Your task to perform on an android device: Turn off the flashlight Image 0: 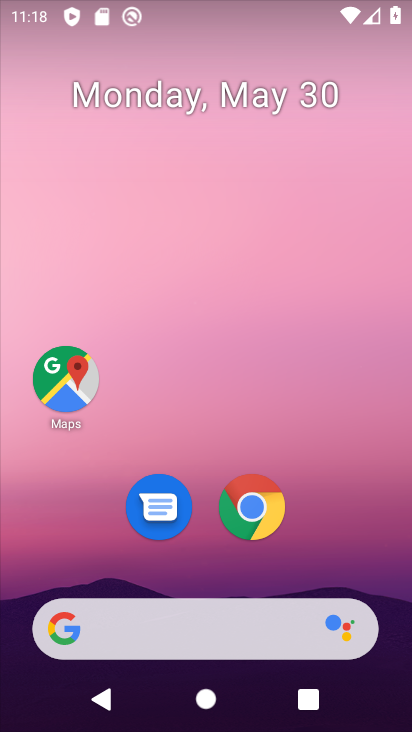
Step 0: click (211, 635)
Your task to perform on an android device: Turn off the flashlight Image 1: 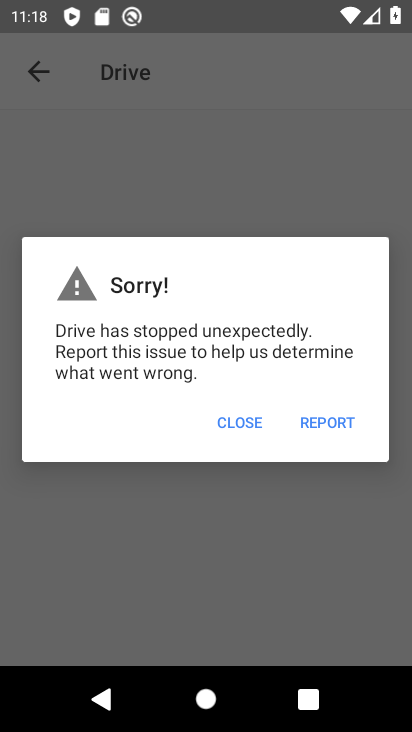
Step 1: task complete